Your task to perform on an android device: toggle sleep mode Image 0: 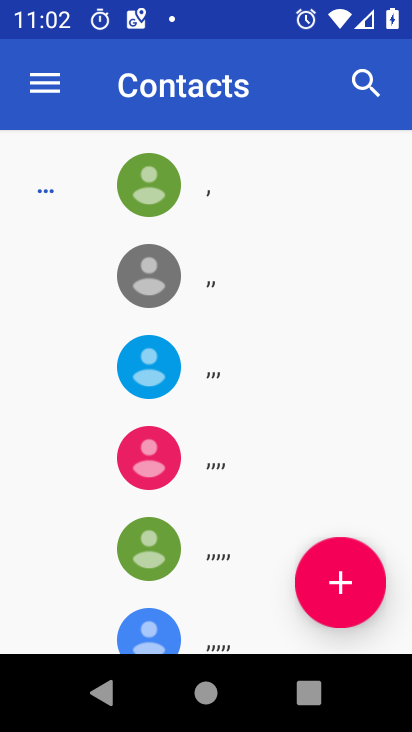
Step 0: press home button
Your task to perform on an android device: toggle sleep mode Image 1: 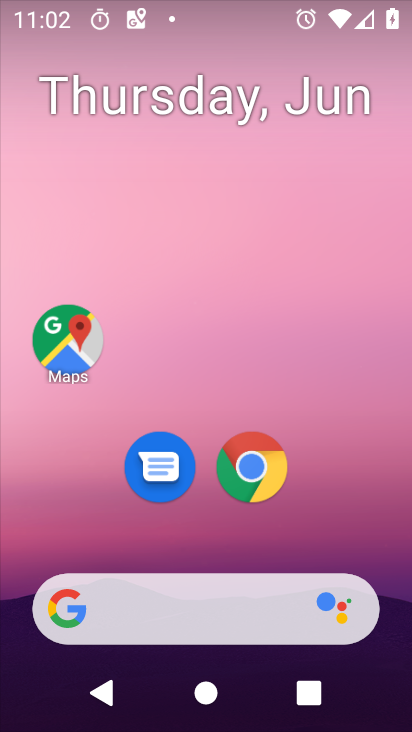
Step 1: drag from (6, 728) to (164, 243)
Your task to perform on an android device: toggle sleep mode Image 2: 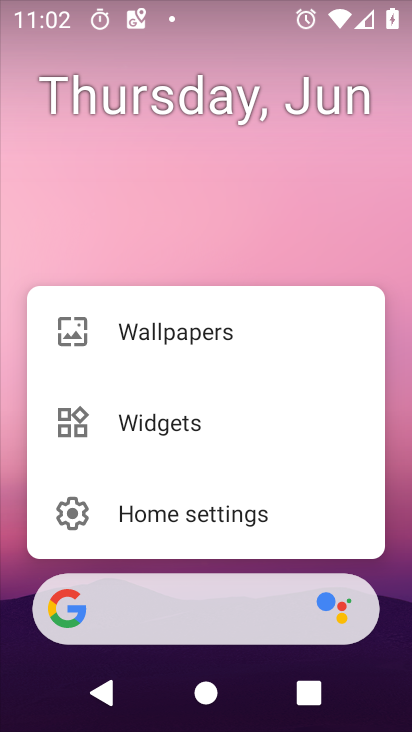
Step 2: press home button
Your task to perform on an android device: toggle sleep mode Image 3: 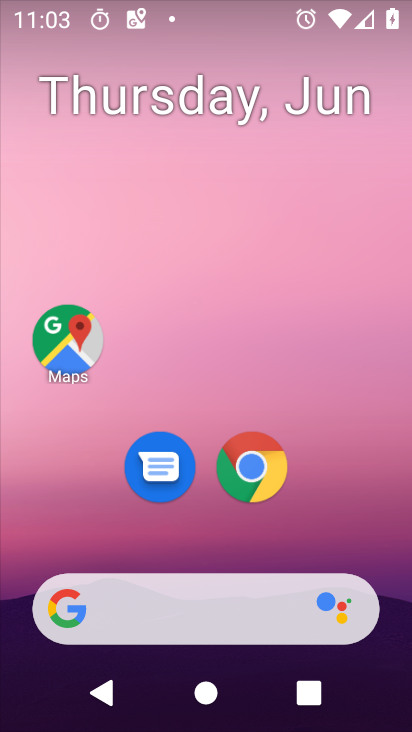
Step 3: drag from (17, 629) to (263, 143)
Your task to perform on an android device: toggle sleep mode Image 4: 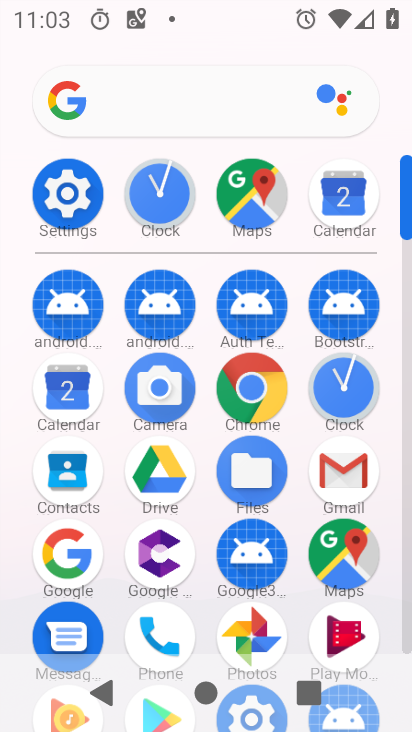
Step 4: drag from (106, 477) to (338, 86)
Your task to perform on an android device: toggle sleep mode Image 5: 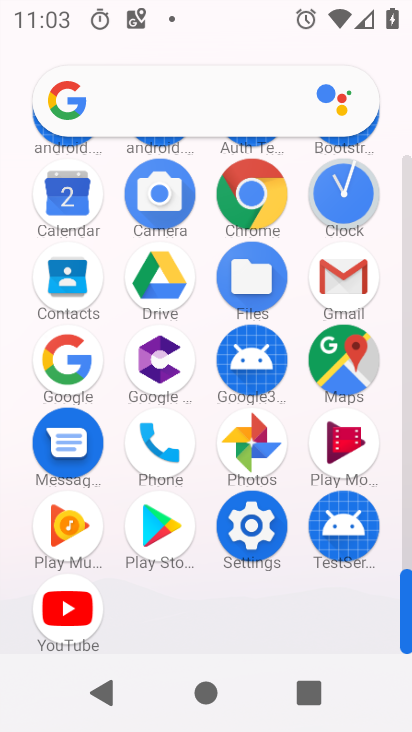
Step 5: click (67, 183)
Your task to perform on an android device: toggle sleep mode Image 6: 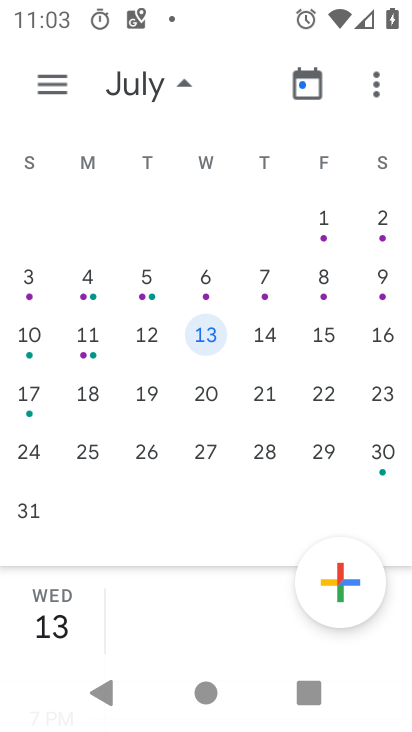
Step 6: press home button
Your task to perform on an android device: toggle sleep mode Image 7: 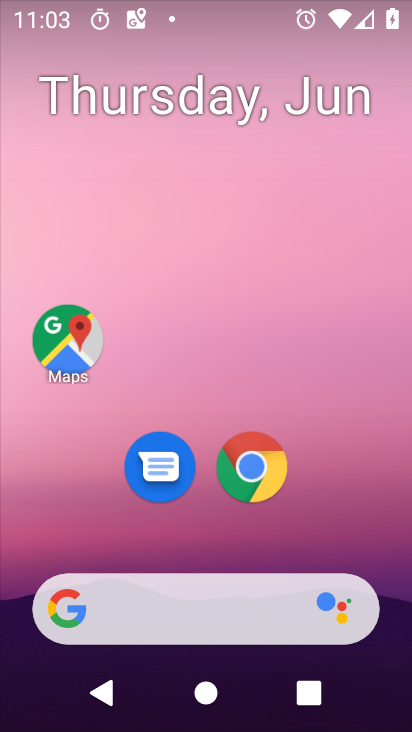
Step 7: drag from (16, 728) to (253, 176)
Your task to perform on an android device: toggle sleep mode Image 8: 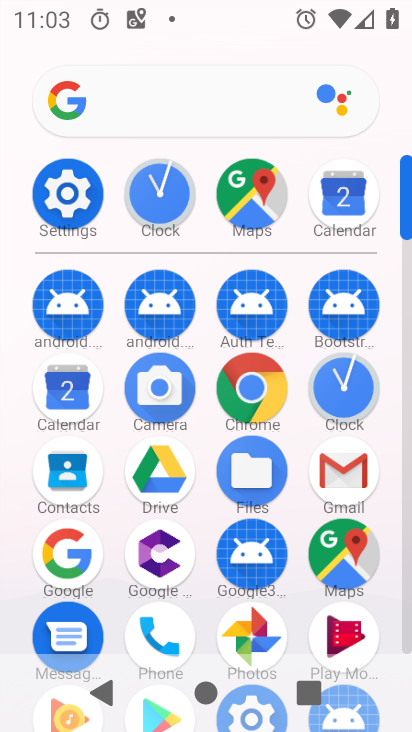
Step 8: click (69, 203)
Your task to perform on an android device: toggle sleep mode Image 9: 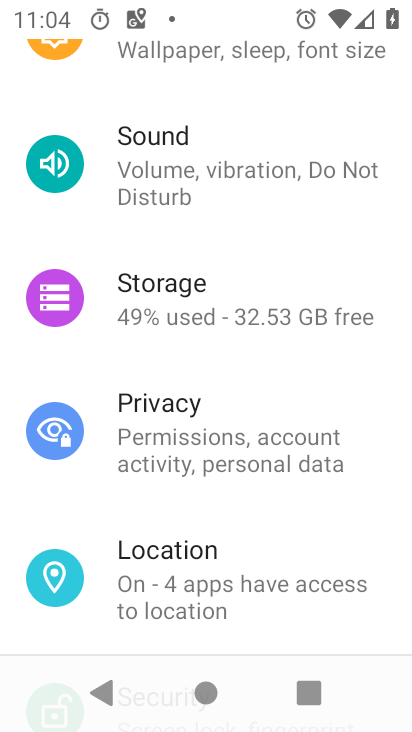
Step 9: click (212, 60)
Your task to perform on an android device: toggle sleep mode Image 10: 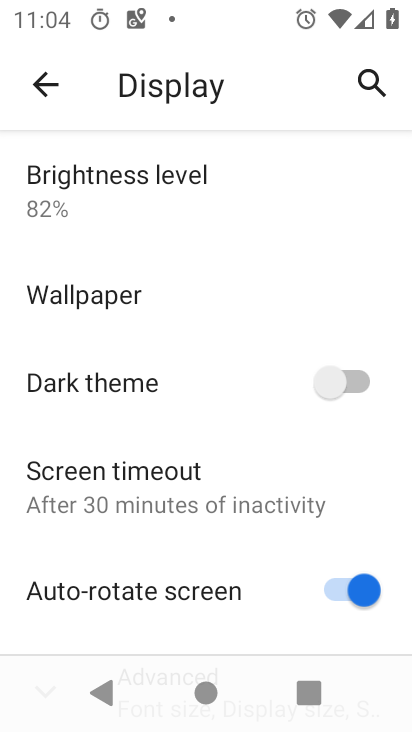
Step 10: task complete